Your task to perform on an android device: Go to network settings Image 0: 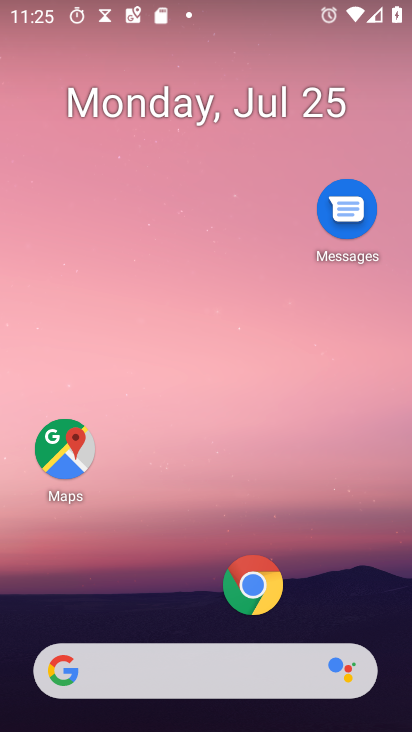
Step 0: press home button
Your task to perform on an android device: Go to network settings Image 1: 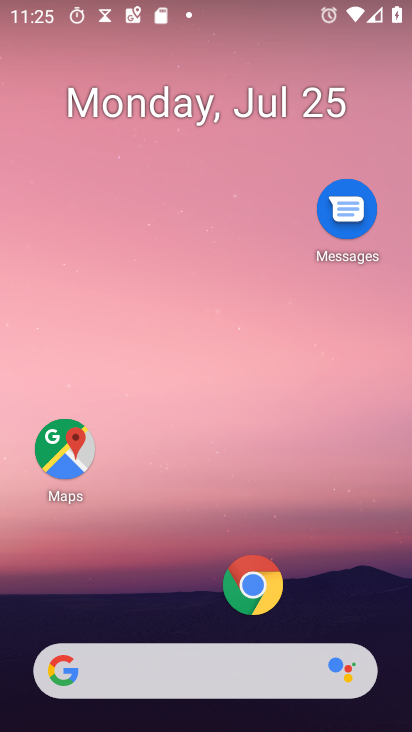
Step 1: drag from (169, 668) to (326, 74)
Your task to perform on an android device: Go to network settings Image 2: 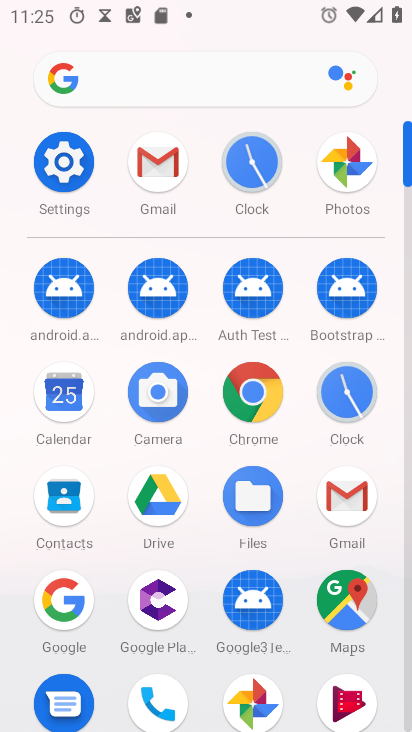
Step 2: click (70, 176)
Your task to perform on an android device: Go to network settings Image 3: 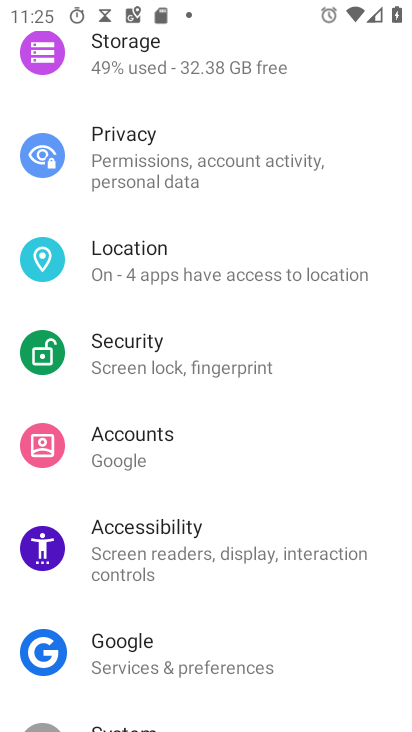
Step 3: drag from (329, 101) to (260, 640)
Your task to perform on an android device: Go to network settings Image 4: 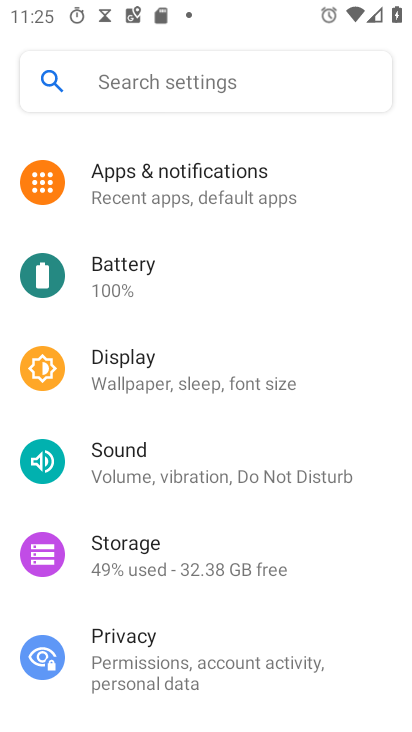
Step 4: drag from (298, 191) to (279, 595)
Your task to perform on an android device: Go to network settings Image 5: 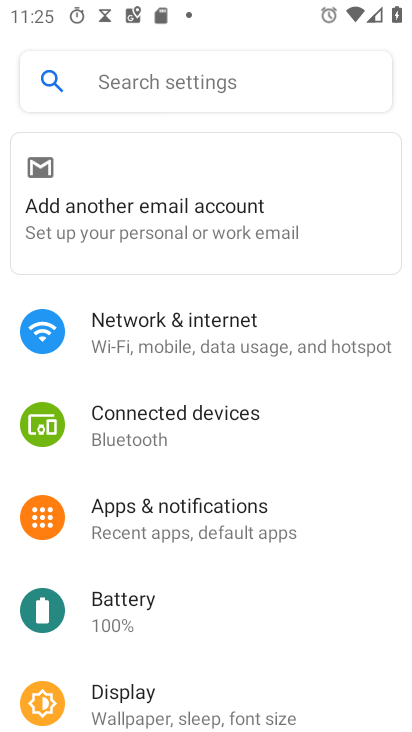
Step 5: click (197, 337)
Your task to perform on an android device: Go to network settings Image 6: 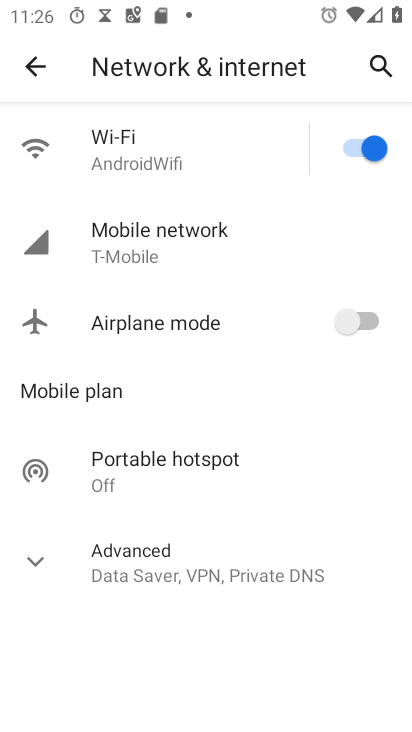
Step 6: task complete